Your task to perform on an android device: turn off picture-in-picture Image 0: 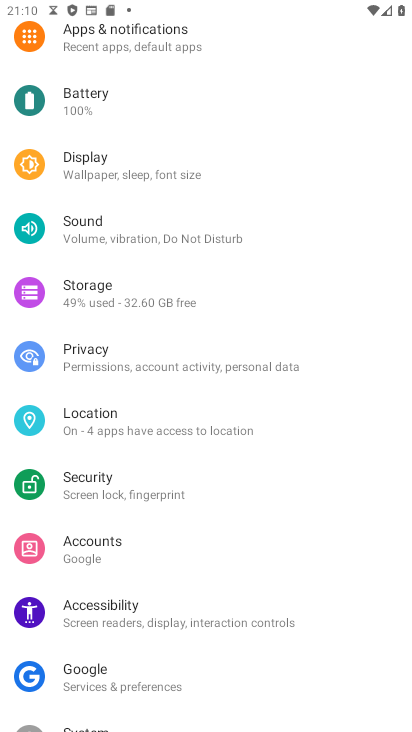
Step 0: press home button
Your task to perform on an android device: turn off picture-in-picture Image 1: 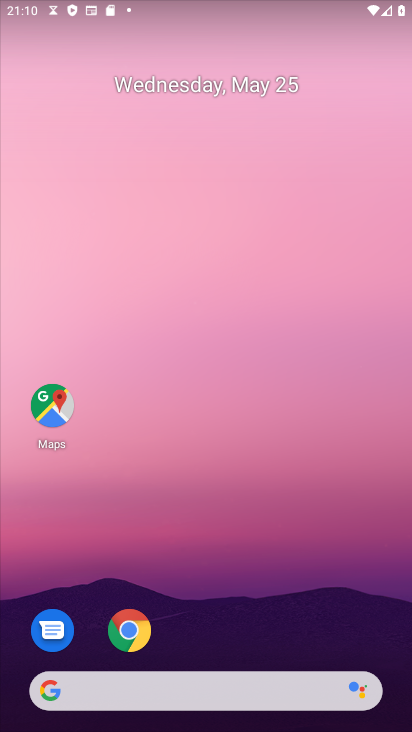
Step 1: click (130, 631)
Your task to perform on an android device: turn off picture-in-picture Image 2: 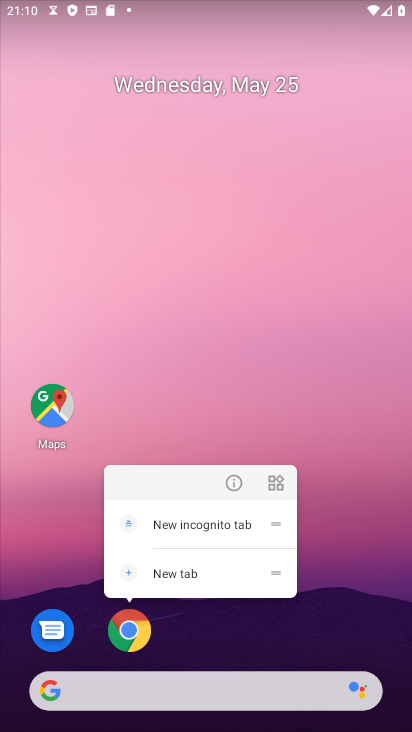
Step 2: click (233, 488)
Your task to perform on an android device: turn off picture-in-picture Image 3: 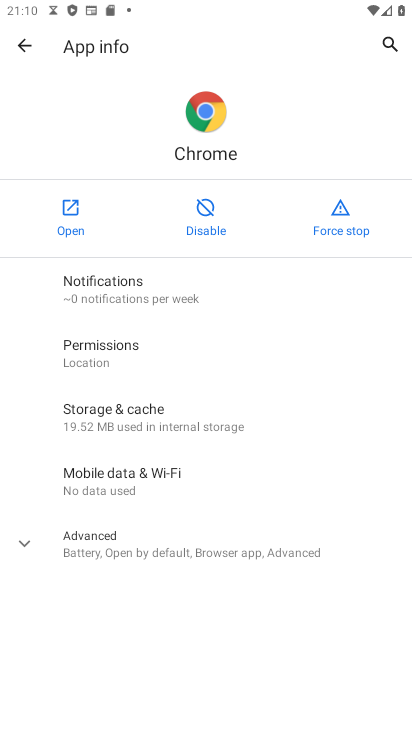
Step 3: click (118, 542)
Your task to perform on an android device: turn off picture-in-picture Image 4: 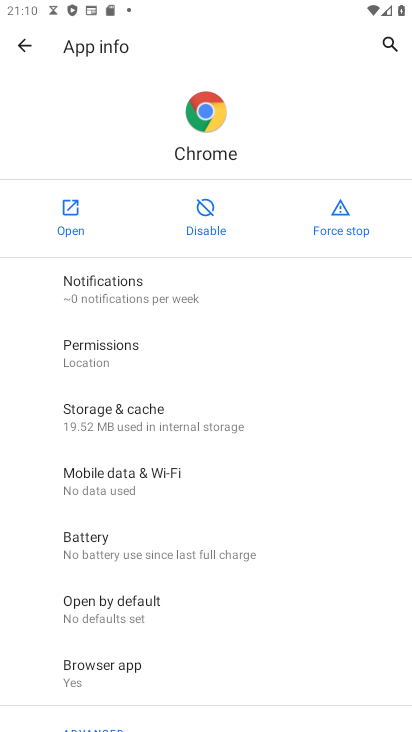
Step 4: drag from (128, 626) to (141, 188)
Your task to perform on an android device: turn off picture-in-picture Image 5: 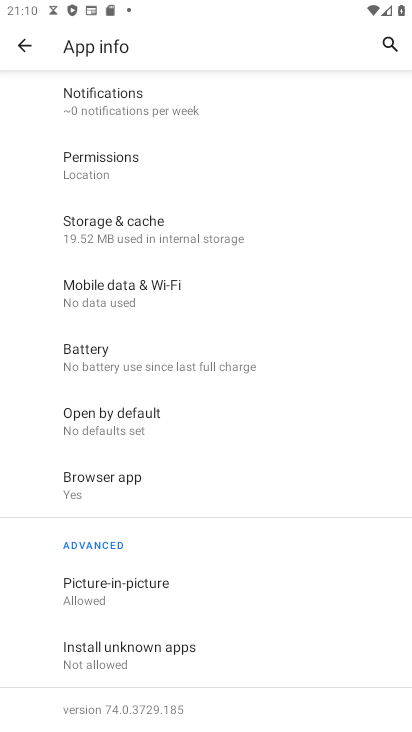
Step 5: click (145, 586)
Your task to perform on an android device: turn off picture-in-picture Image 6: 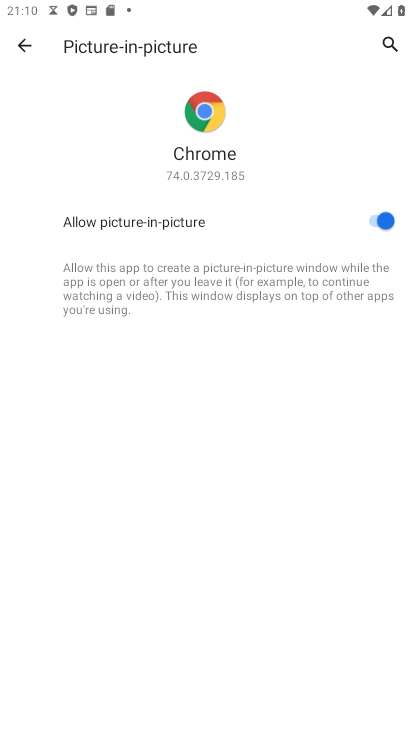
Step 6: click (382, 223)
Your task to perform on an android device: turn off picture-in-picture Image 7: 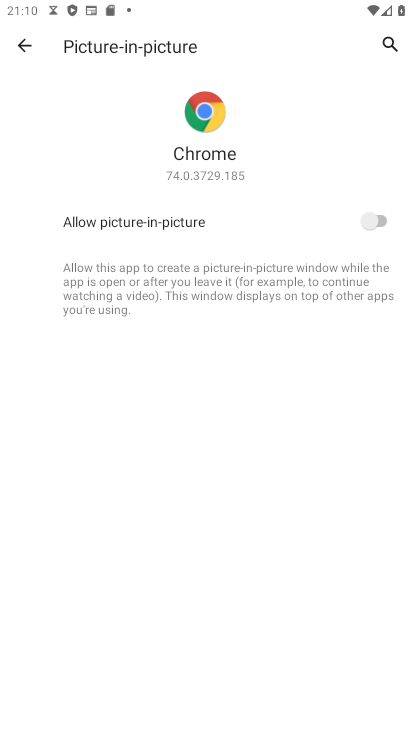
Step 7: task complete